Your task to perform on an android device: turn on bluetooth scan Image 0: 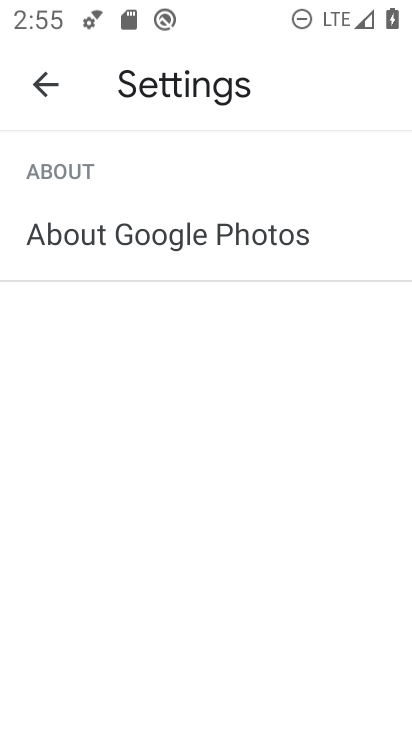
Step 0: press home button
Your task to perform on an android device: turn on bluetooth scan Image 1: 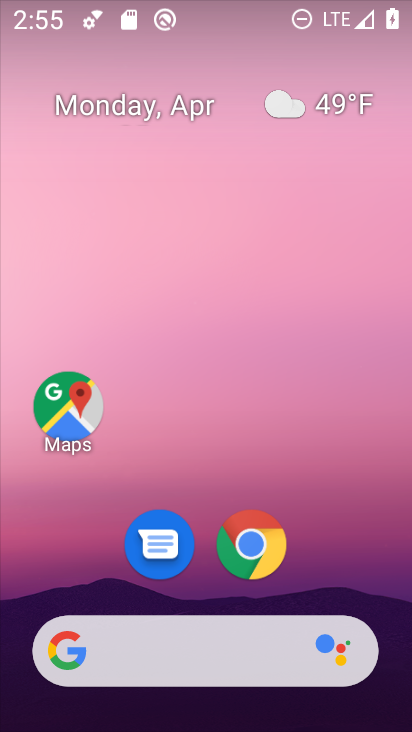
Step 1: drag from (336, 554) to (230, 52)
Your task to perform on an android device: turn on bluetooth scan Image 2: 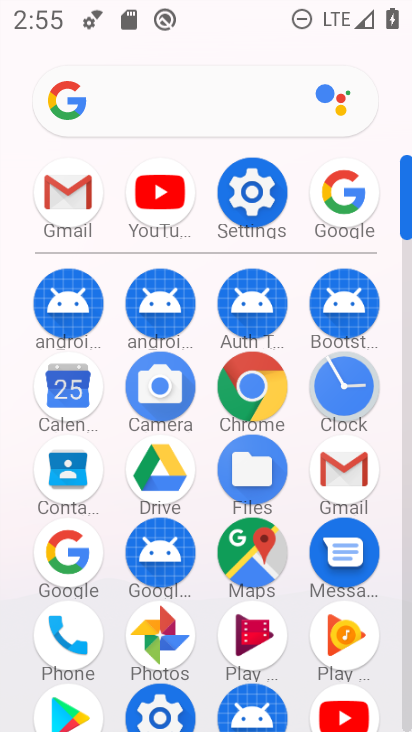
Step 2: click (266, 215)
Your task to perform on an android device: turn on bluetooth scan Image 3: 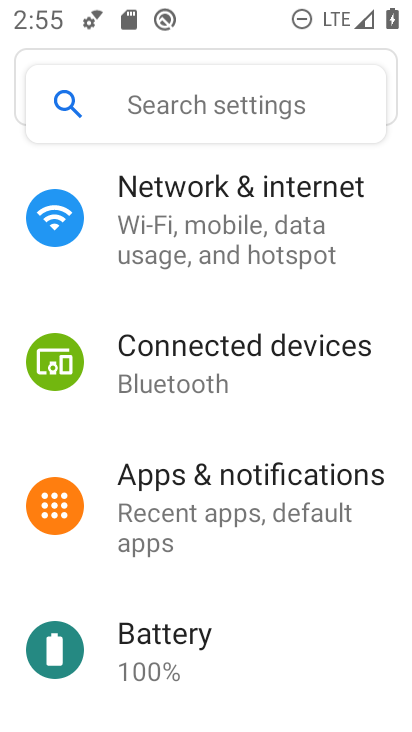
Step 3: drag from (250, 613) to (239, 184)
Your task to perform on an android device: turn on bluetooth scan Image 4: 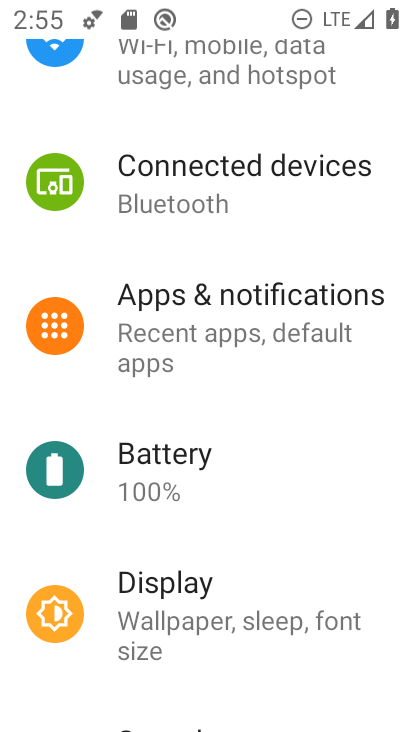
Step 4: drag from (221, 685) to (267, 145)
Your task to perform on an android device: turn on bluetooth scan Image 5: 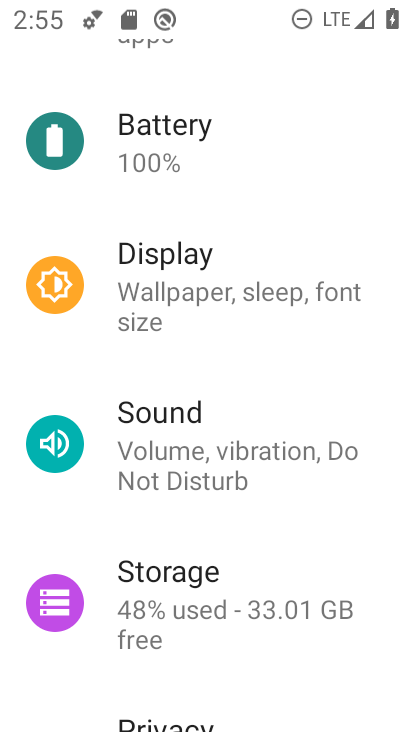
Step 5: drag from (238, 648) to (301, 178)
Your task to perform on an android device: turn on bluetooth scan Image 6: 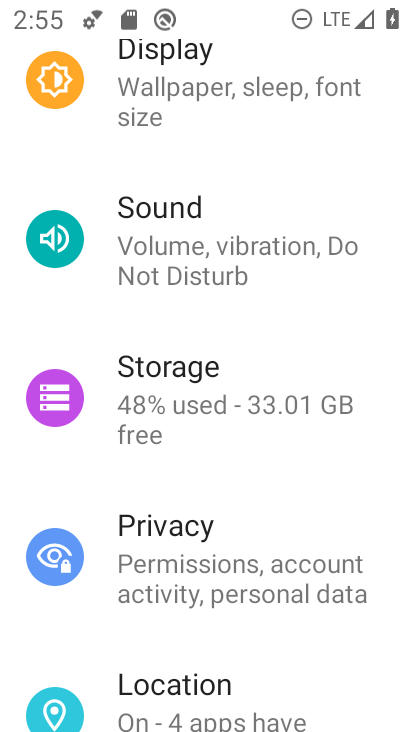
Step 6: click (203, 666)
Your task to perform on an android device: turn on bluetooth scan Image 7: 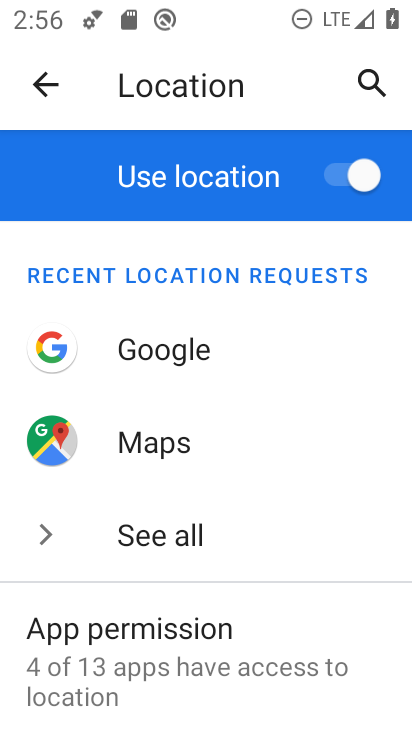
Step 7: drag from (317, 597) to (275, 229)
Your task to perform on an android device: turn on bluetooth scan Image 8: 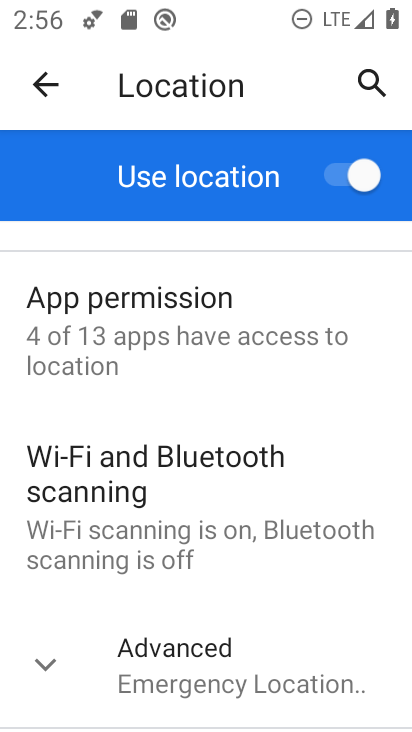
Step 8: click (233, 542)
Your task to perform on an android device: turn on bluetooth scan Image 9: 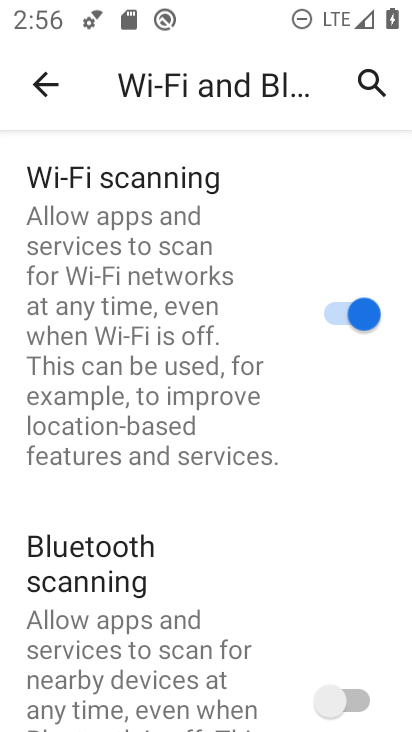
Step 9: click (339, 690)
Your task to perform on an android device: turn on bluetooth scan Image 10: 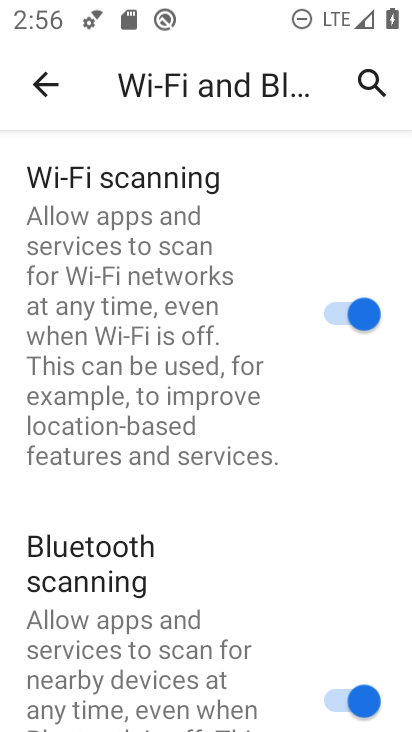
Step 10: task complete